Your task to perform on an android device: all mails in gmail Image 0: 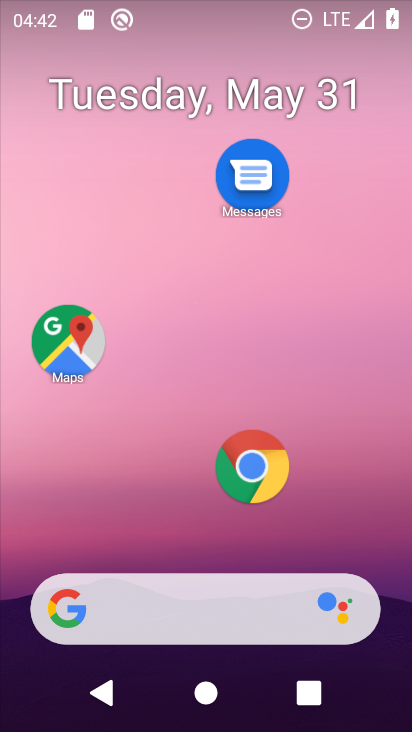
Step 0: drag from (168, 395) to (170, 82)
Your task to perform on an android device: all mails in gmail Image 1: 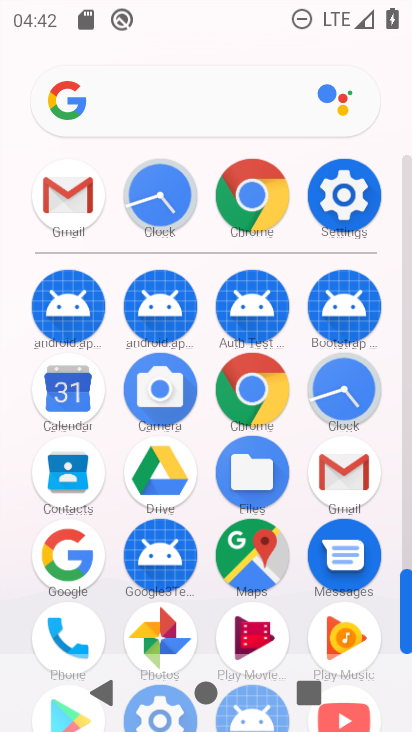
Step 1: click (70, 193)
Your task to perform on an android device: all mails in gmail Image 2: 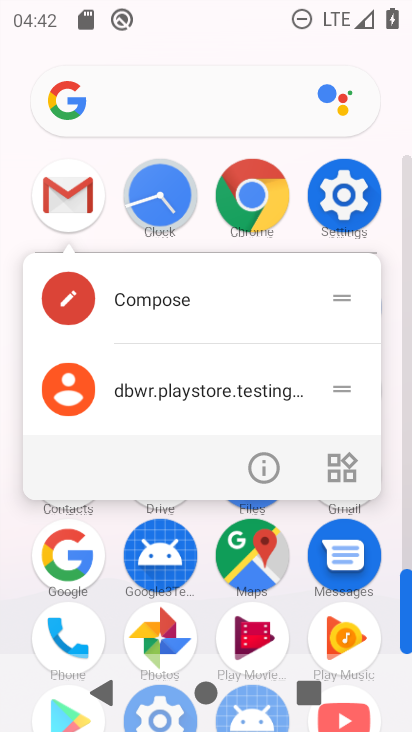
Step 2: click (74, 192)
Your task to perform on an android device: all mails in gmail Image 3: 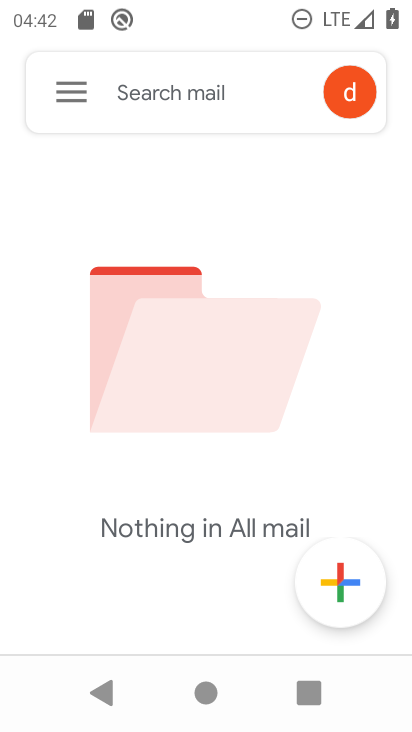
Step 3: task complete